Your task to perform on an android device: add a contact Image 0: 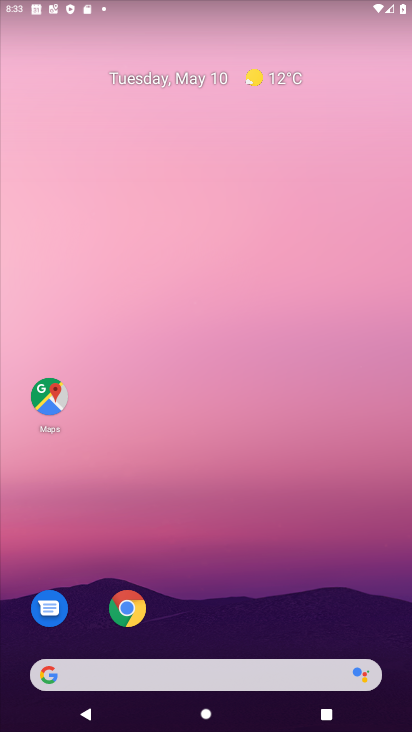
Step 0: drag from (194, 682) to (182, 5)
Your task to perform on an android device: add a contact Image 1: 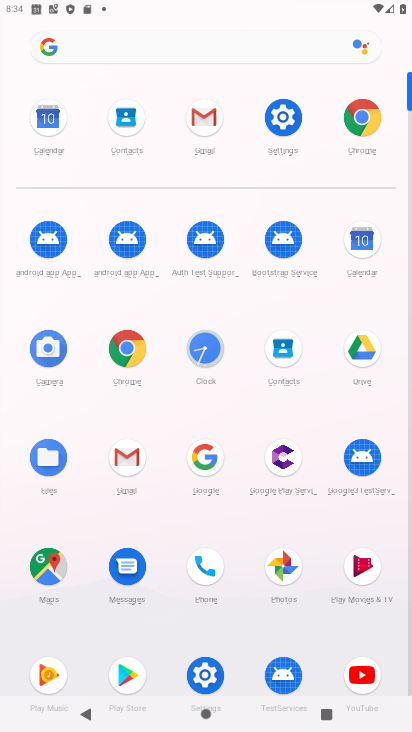
Step 1: click (281, 355)
Your task to perform on an android device: add a contact Image 2: 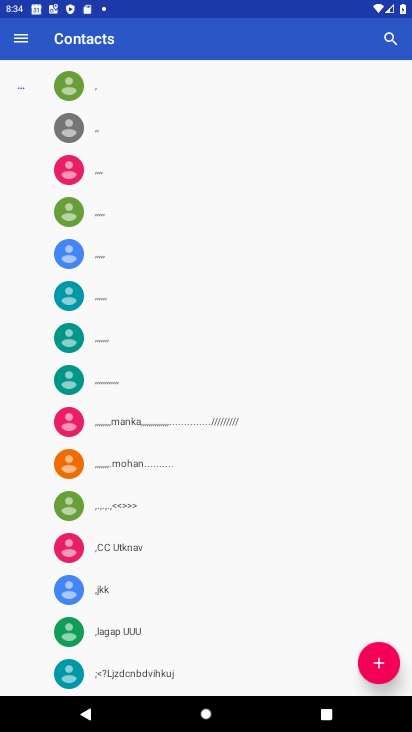
Step 2: click (378, 651)
Your task to perform on an android device: add a contact Image 3: 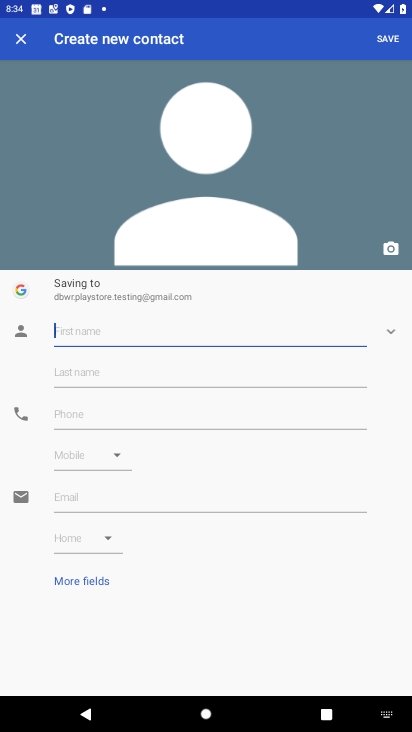
Step 3: click (155, 325)
Your task to perform on an android device: add a contact Image 4: 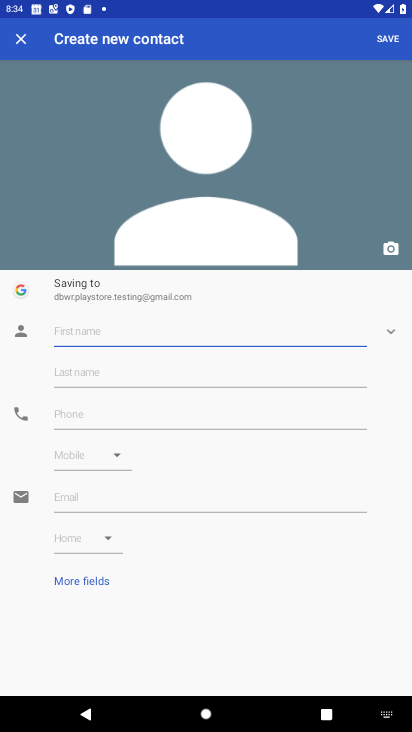
Step 4: type "jagga"
Your task to perform on an android device: add a contact Image 5: 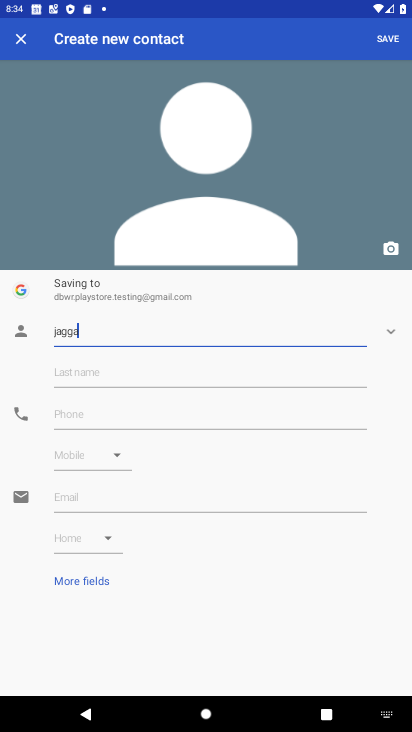
Step 5: click (201, 380)
Your task to perform on an android device: add a contact Image 6: 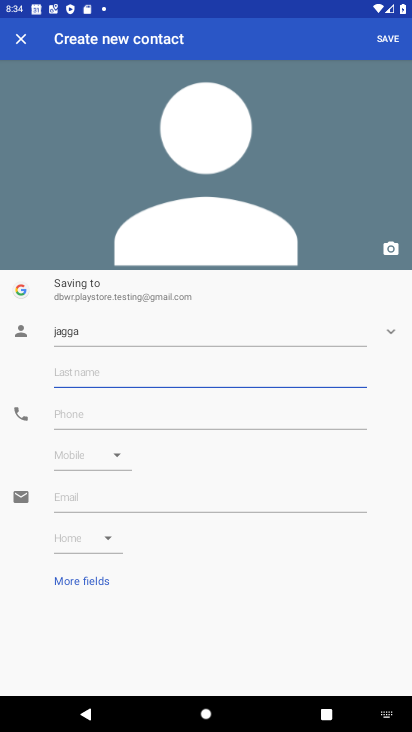
Step 6: type "dakhu"
Your task to perform on an android device: add a contact Image 7: 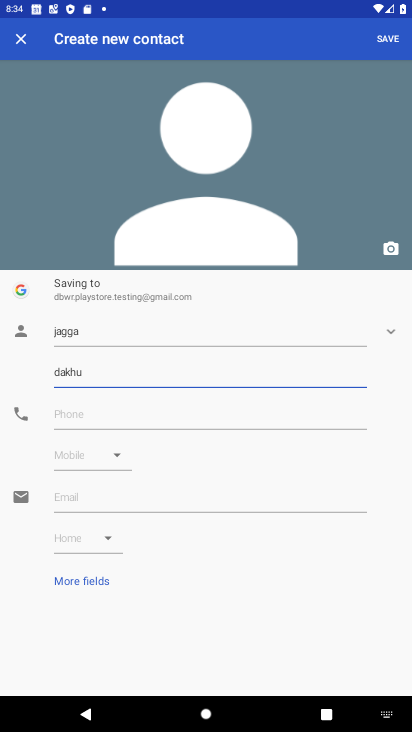
Step 7: click (63, 408)
Your task to perform on an android device: add a contact Image 8: 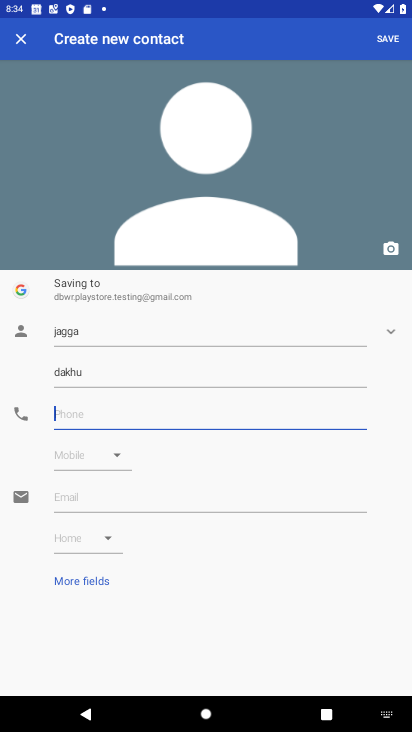
Step 8: type "21989012"
Your task to perform on an android device: add a contact Image 9: 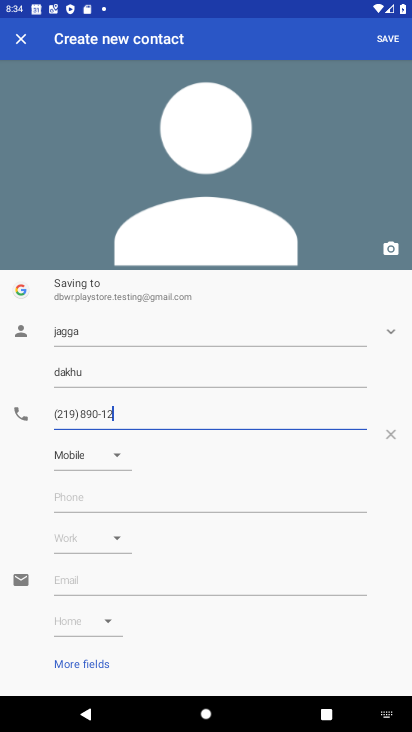
Step 9: click (387, 40)
Your task to perform on an android device: add a contact Image 10: 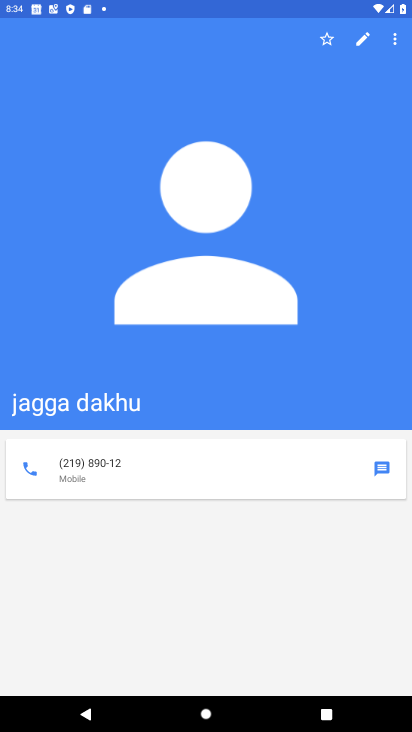
Step 10: task complete